Your task to perform on an android device: Search for Italian restaurants on Maps Image 0: 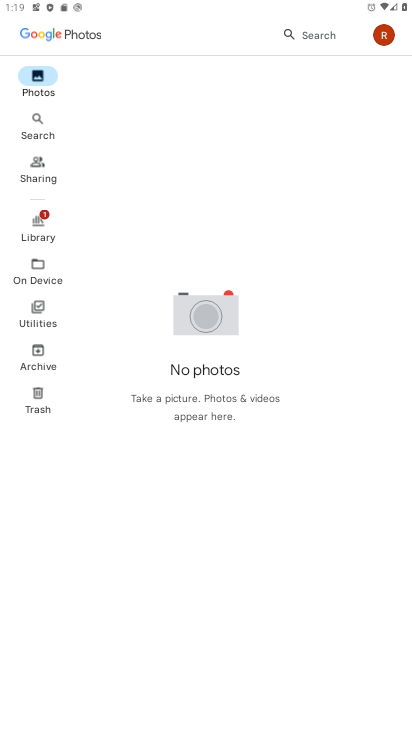
Step 0: press home button
Your task to perform on an android device: Search for Italian restaurants on Maps Image 1: 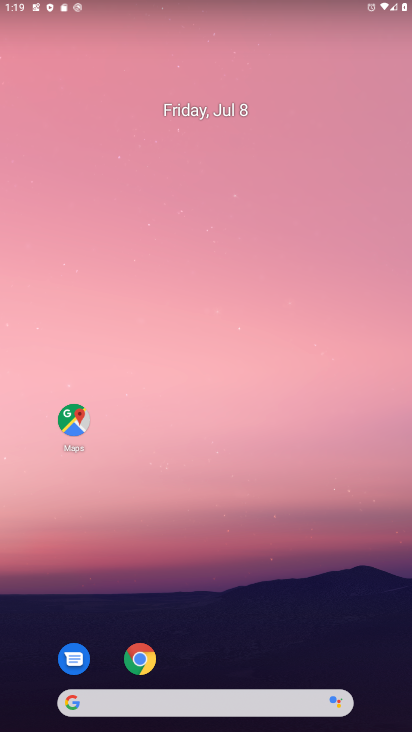
Step 1: click (75, 418)
Your task to perform on an android device: Search for Italian restaurants on Maps Image 2: 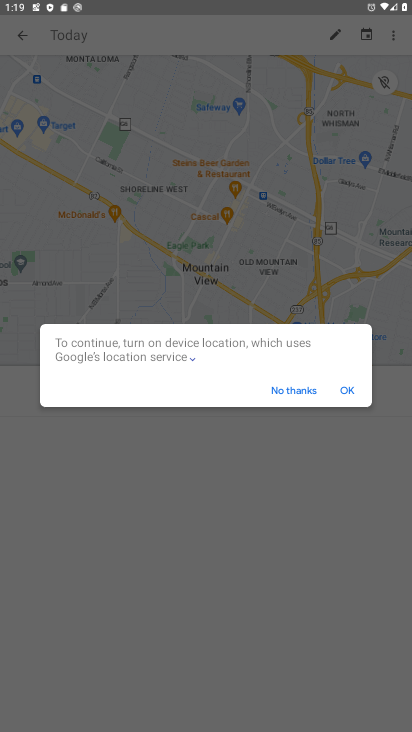
Step 2: click (346, 387)
Your task to perform on an android device: Search for Italian restaurants on Maps Image 3: 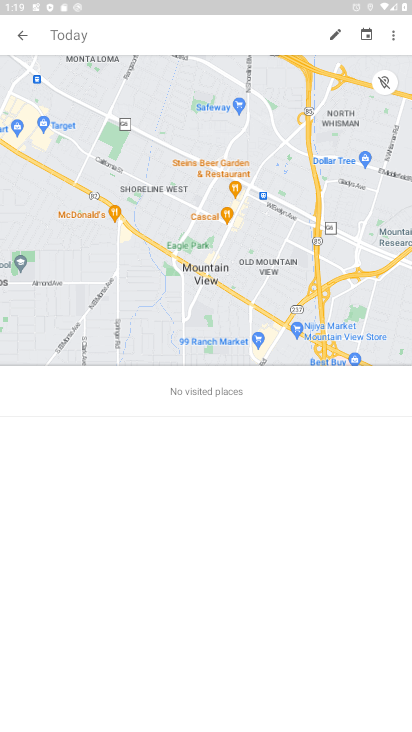
Step 3: click (18, 31)
Your task to perform on an android device: Search for Italian restaurants on Maps Image 4: 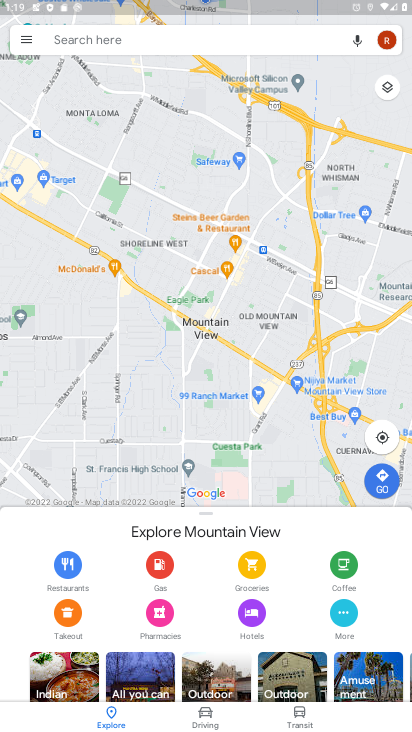
Step 4: click (162, 39)
Your task to perform on an android device: Search for Italian restaurants on Maps Image 5: 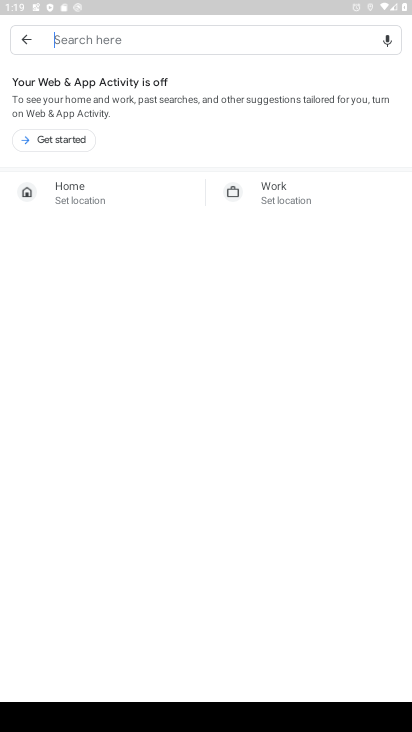
Step 5: type "italian restaurants"
Your task to perform on an android device: Search for Italian restaurants on Maps Image 6: 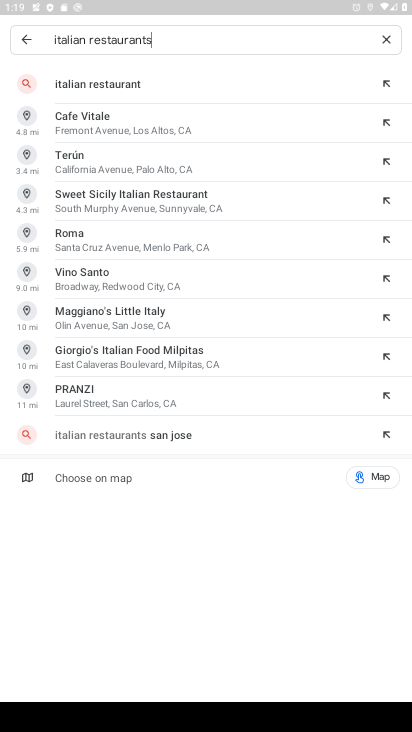
Step 6: click (119, 83)
Your task to perform on an android device: Search for Italian restaurants on Maps Image 7: 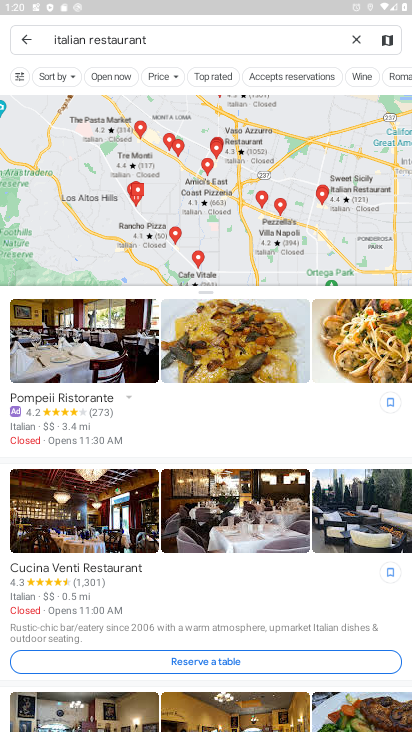
Step 7: task complete